Your task to perform on an android device: toggle priority inbox in the gmail app Image 0: 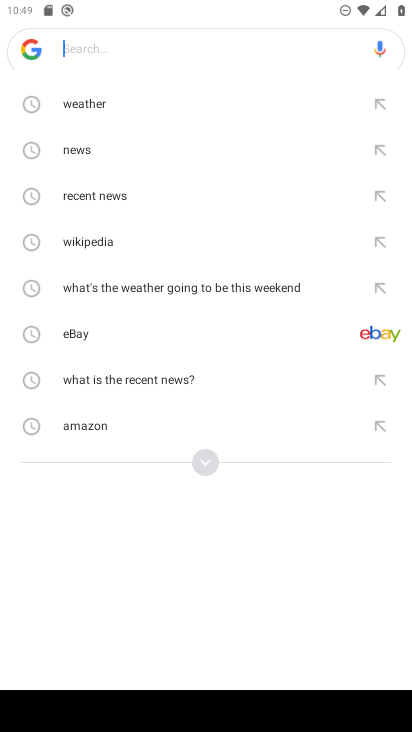
Step 0: press home button
Your task to perform on an android device: toggle priority inbox in the gmail app Image 1: 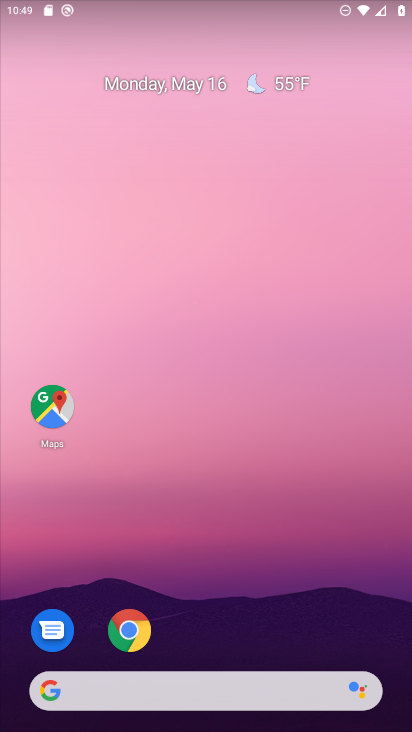
Step 1: drag from (215, 611) to (237, 126)
Your task to perform on an android device: toggle priority inbox in the gmail app Image 2: 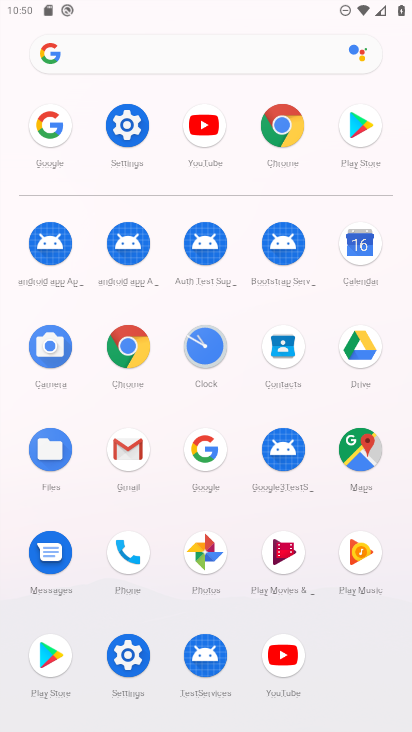
Step 2: click (133, 459)
Your task to perform on an android device: toggle priority inbox in the gmail app Image 3: 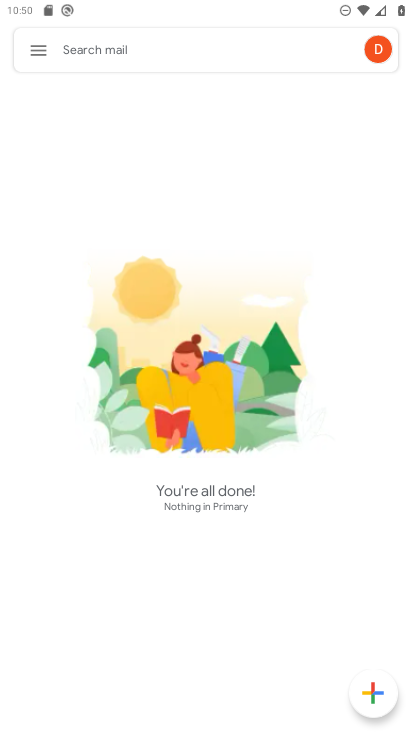
Step 3: click (42, 61)
Your task to perform on an android device: toggle priority inbox in the gmail app Image 4: 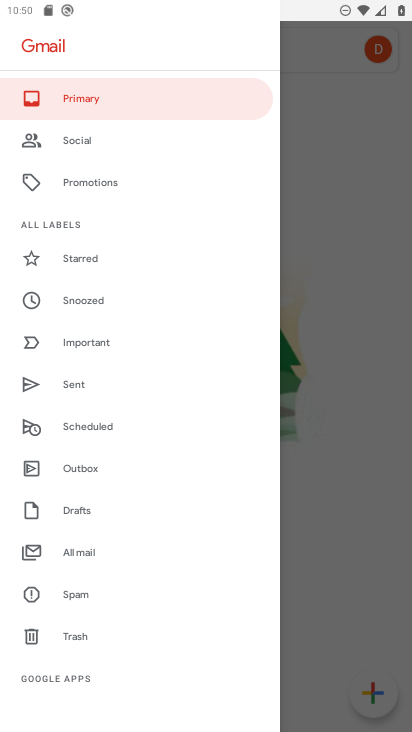
Step 4: drag from (94, 619) to (149, 352)
Your task to perform on an android device: toggle priority inbox in the gmail app Image 5: 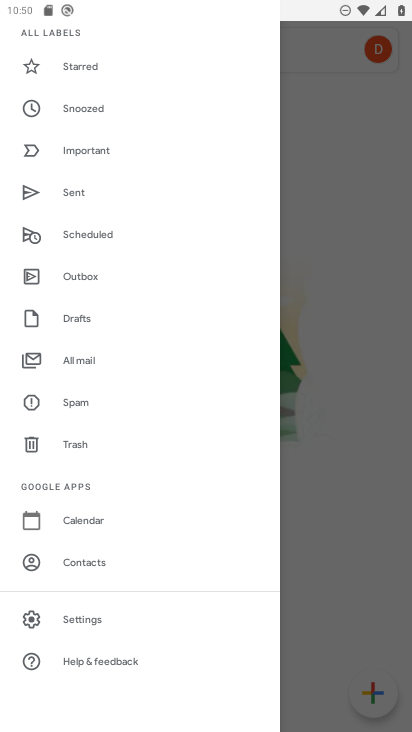
Step 5: click (87, 610)
Your task to perform on an android device: toggle priority inbox in the gmail app Image 6: 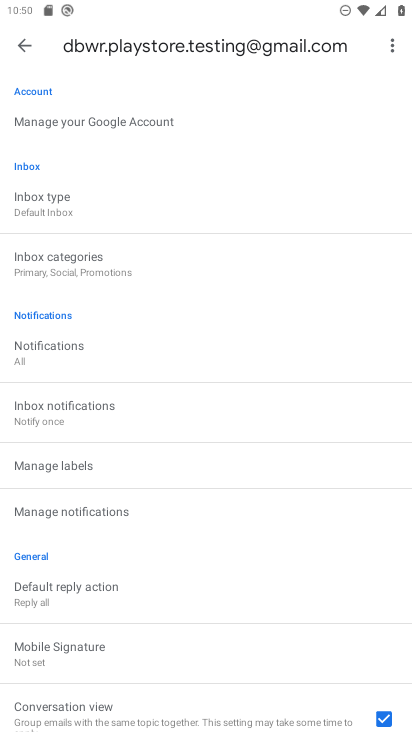
Step 6: click (79, 214)
Your task to perform on an android device: toggle priority inbox in the gmail app Image 7: 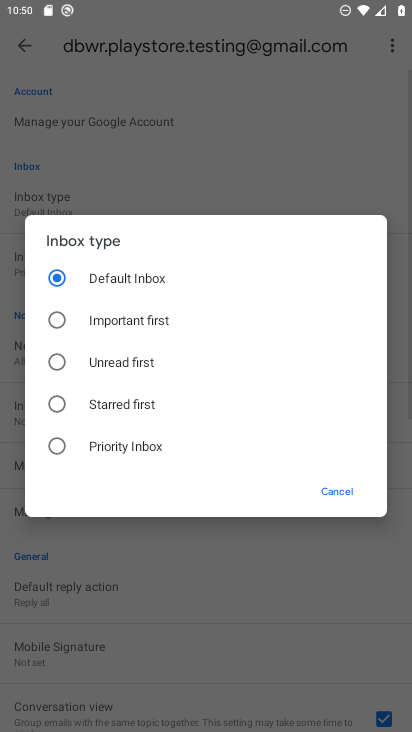
Step 7: click (114, 440)
Your task to perform on an android device: toggle priority inbox in the gmail app Image 8: 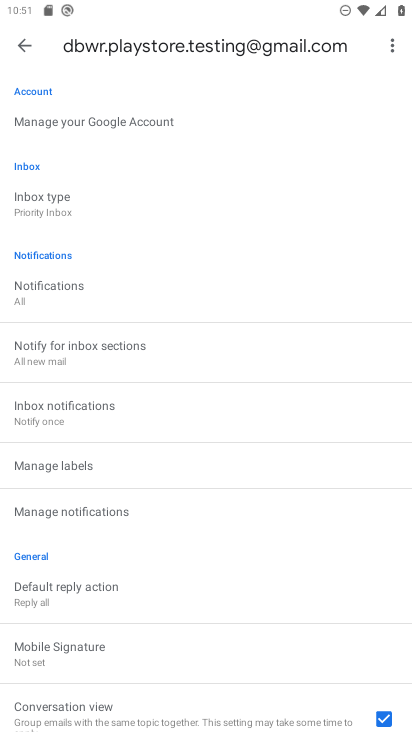
Step 8: task complete